Your task to perform on an android device: turn pop-ups off in chrome Image 0: 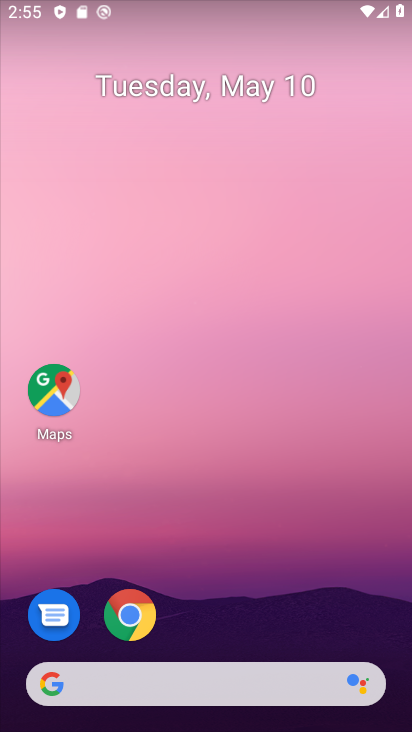
Step 0: click (150, 620)
Your task to perform on an android device: turn pop-ups off in chrome Image 1: 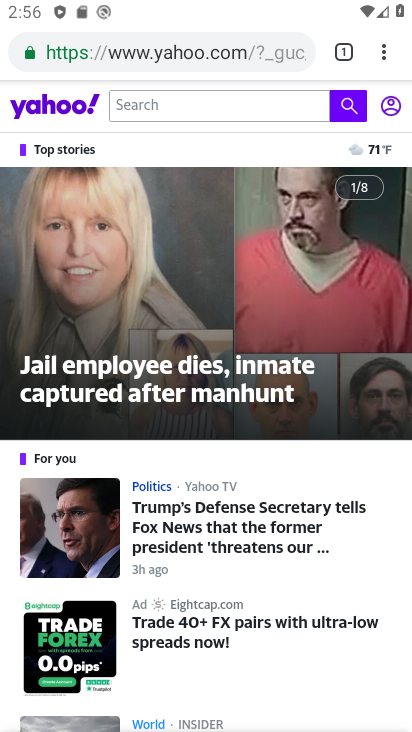
Step 1: drag from (380, 58) to (294, 621)
Your task to perform on an android device: turn pop-ups off in chrome Image 2: 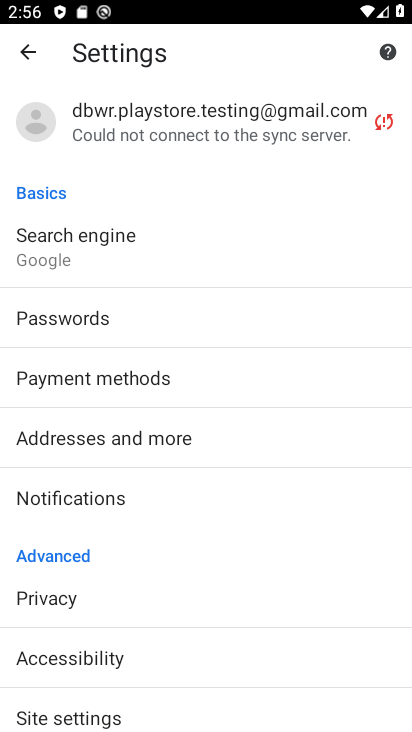
Step 2: drag from (251, 691) to (180, 407)
Your task to perform on an android device: turn pop-ups off in chrome Image 3: 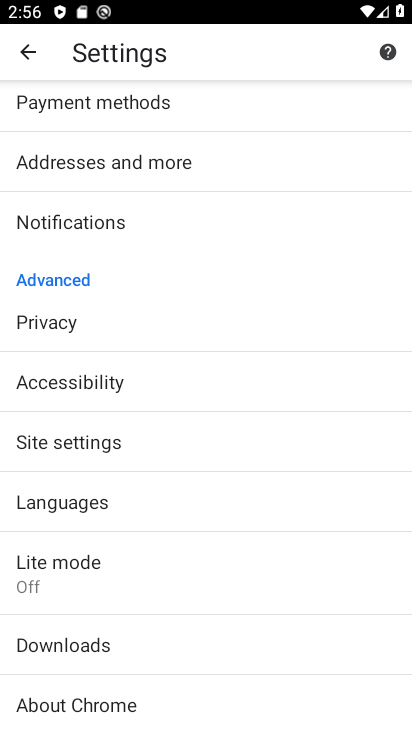
Step 3: click (75, 452)
Your task to perform on an android device: turn pop-ups off in chrome Image 4: 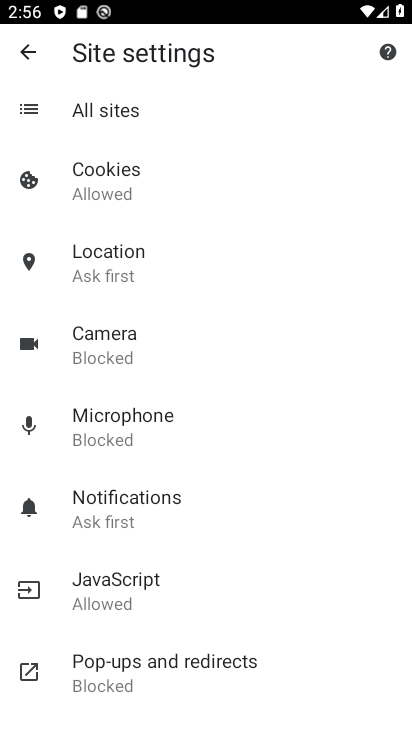
Step 4: click (189, 663)
Your task to perform on an android device: turn pop-ups off in chrome Image 5: 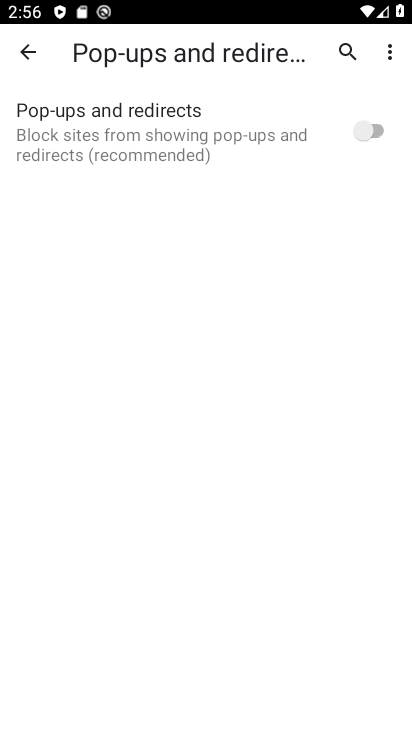
Step 5: task complete